Your task to perform on an android device: open app "HBO Max: Stream TV & Movies" (install if not already installed), go to login, and select forgot password Image 0: 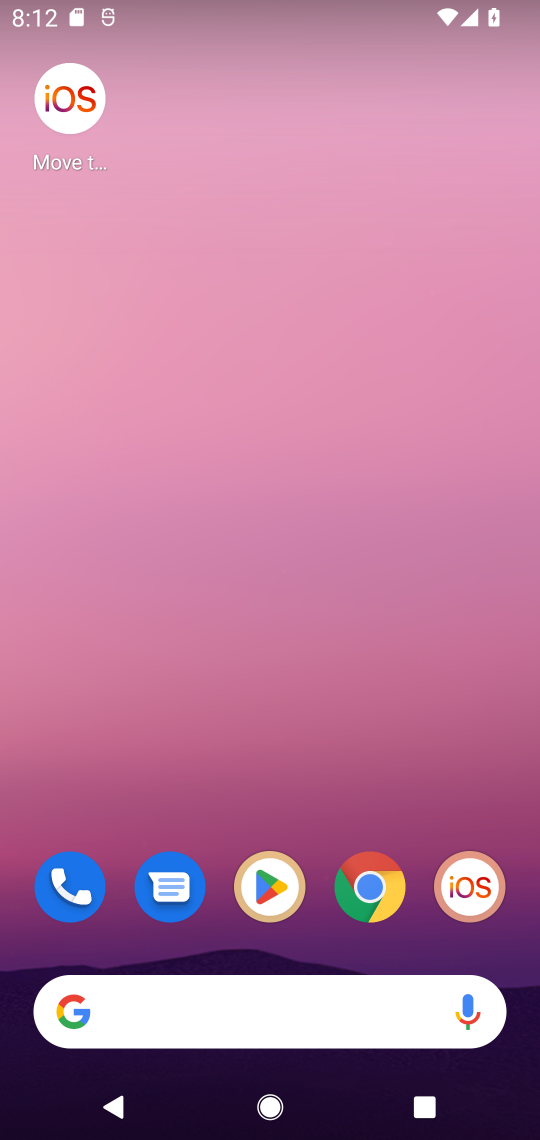
Step 0: click (259, 918)
Your task to perform on an android device: open app "HBO Max: Stream TV & Movies" (install if not already installed), go to login, and select forgot password Image 1: 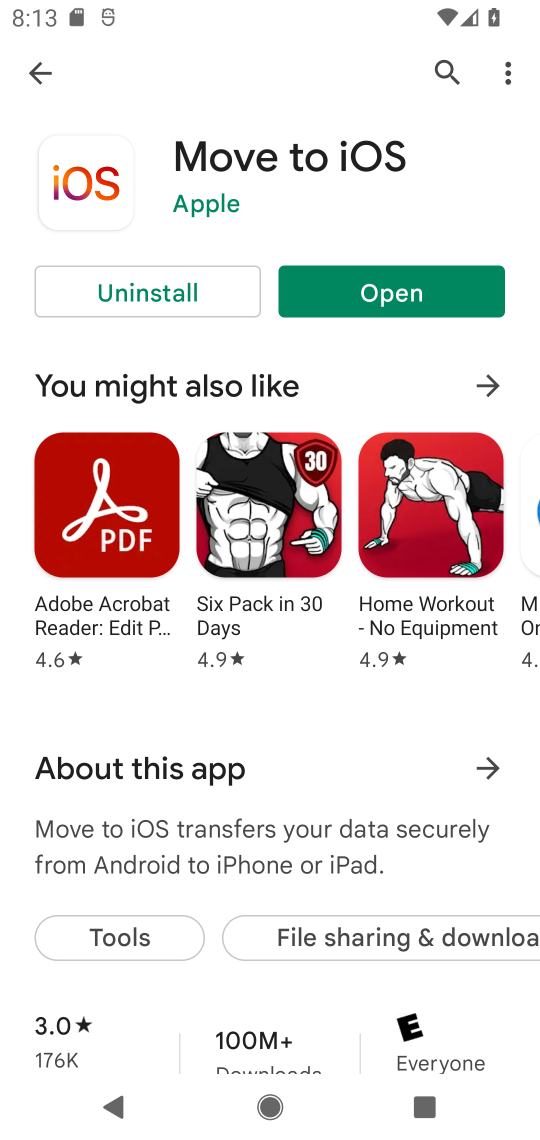
Step 1: click (448, 97)
Your task to perform on an android device: open app "HBO Max: Stream TV & Movies" (install if not already installed), go to login, and select forgot password Image 2: 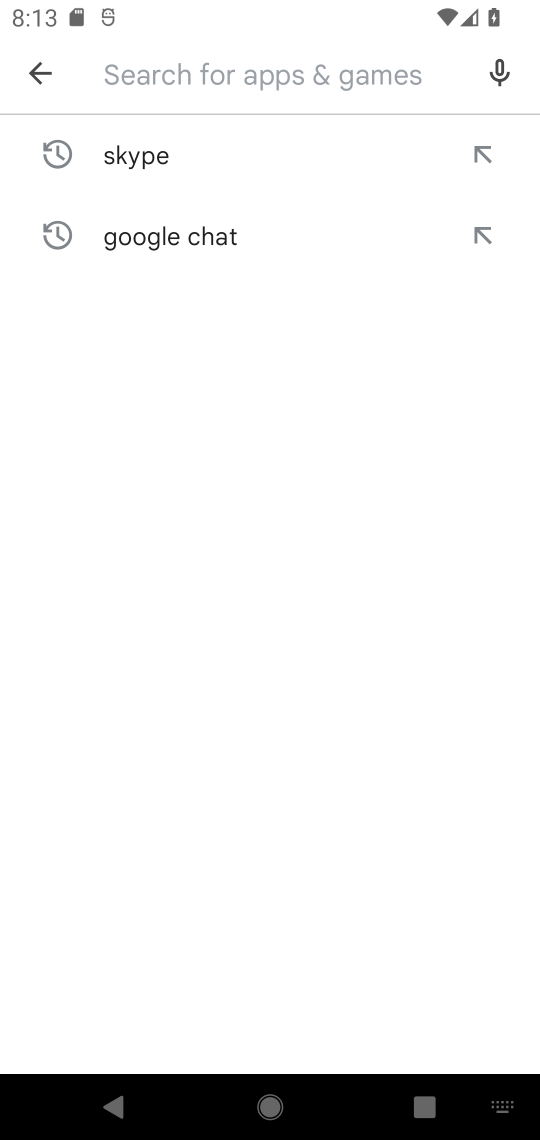
Step 2: type "hbo"
Your task to perform on an android device: open app "HBO Max: Stream TV & Movies" (install if not already installed), go to login, and select forgot password Image 3: 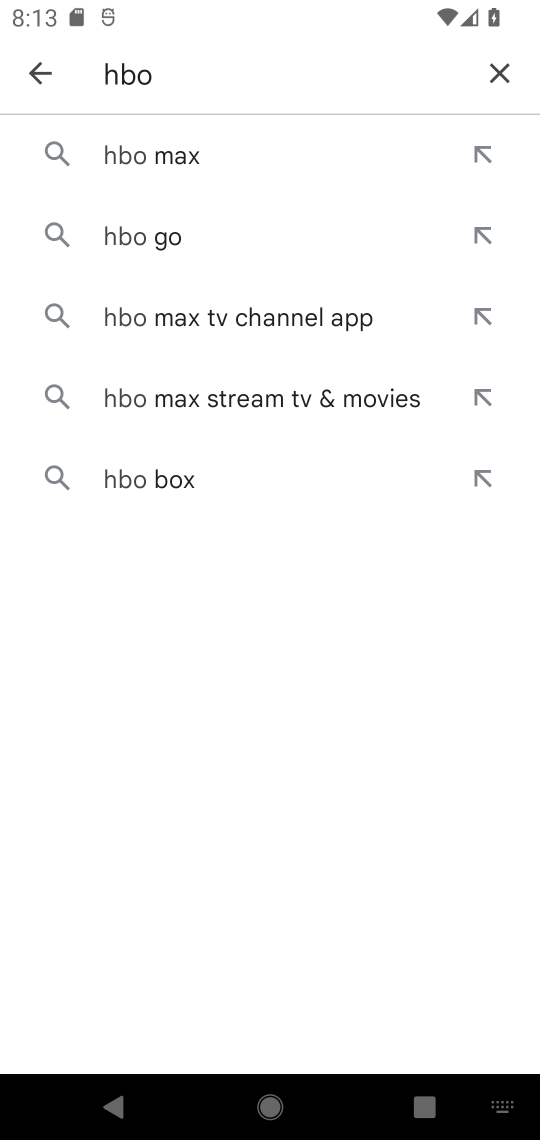
Step 3: click (301, 126)
Your task to perform on an android device: open app "HBO Max: Stream TV & Movies" (install if not already installed), go to login, and select forgot password Image 4: 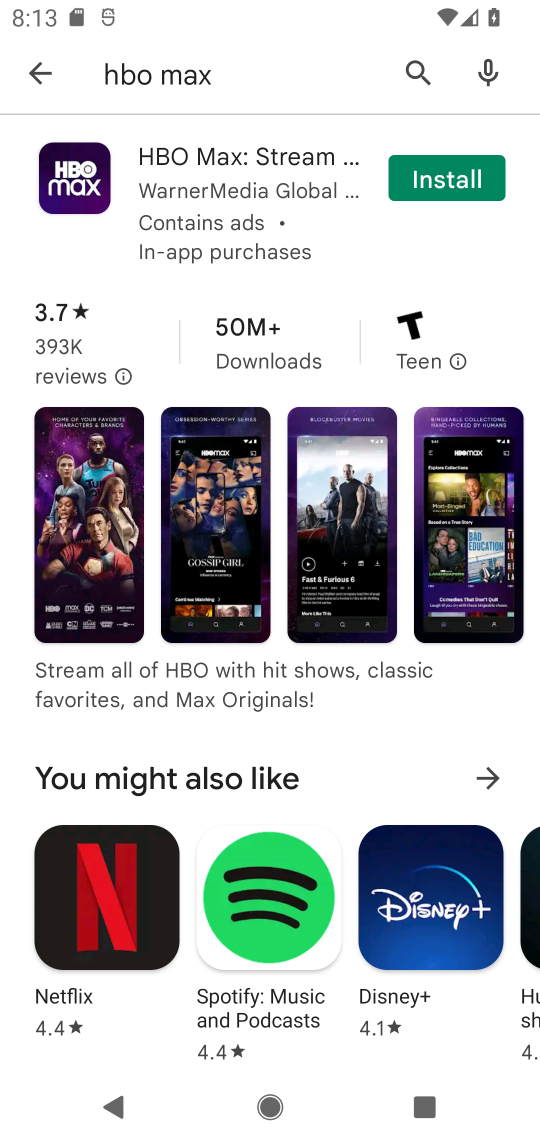
Step 4: click (425, 160)
Your task to perform on an android device: open app "HBO Max: Stream TV & Movies" (install if not already installed), go to login, and select forgot password Image 5: 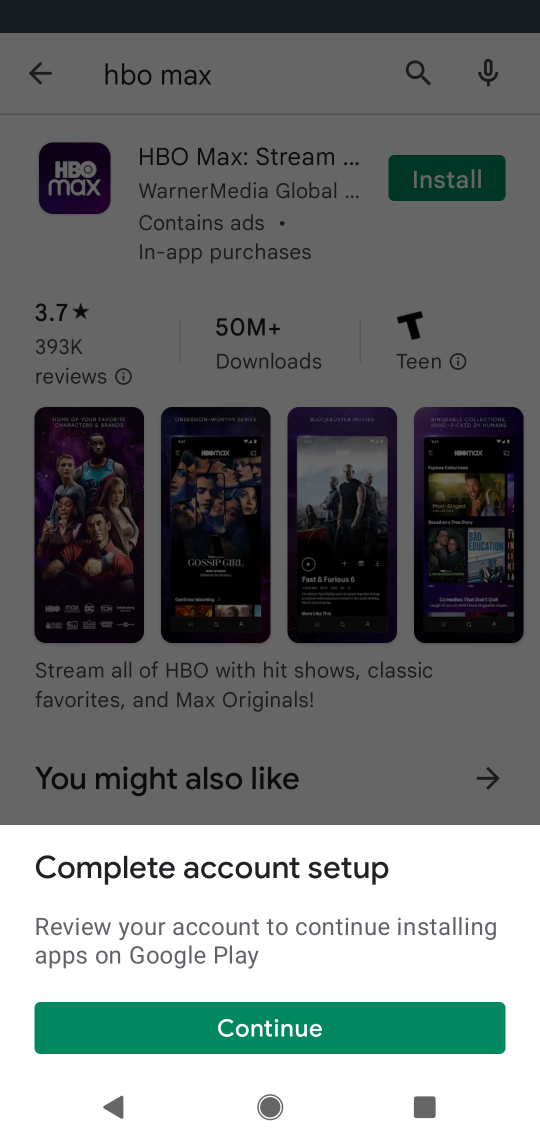
Step 5: click (337, 1034)
Your task to perform on an android device: open app "HBO Max: Stream TV & Movies" (install if not already installed), go to login, and select forgot password Image 6: 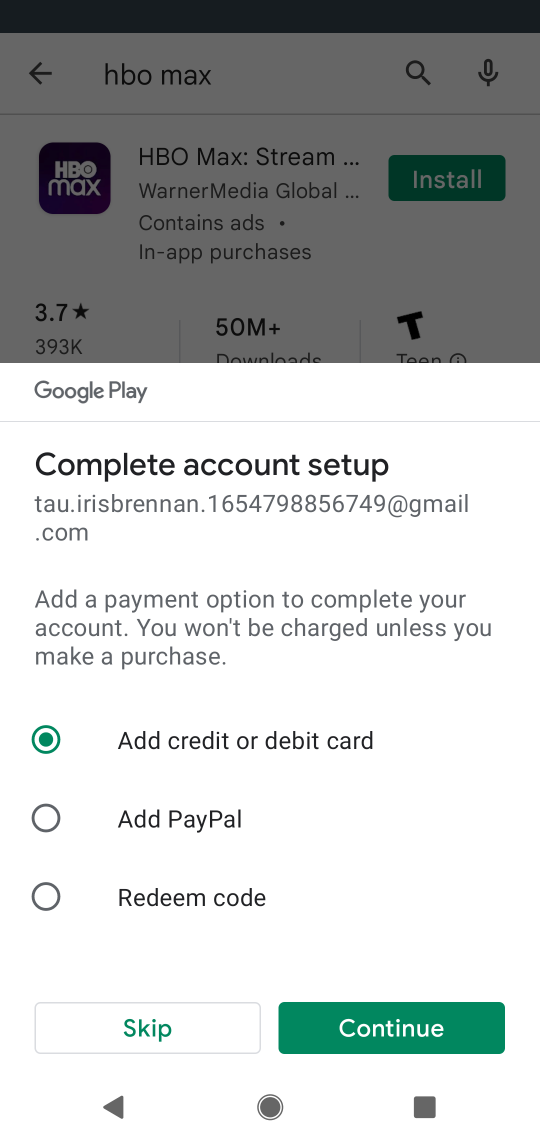
Step 6: click (177, 1047)
Your task to perform on an android device: open app "HBO Max: Stream TV & Movies" (install if not already installed), go to login, and select forgot password Image 7: 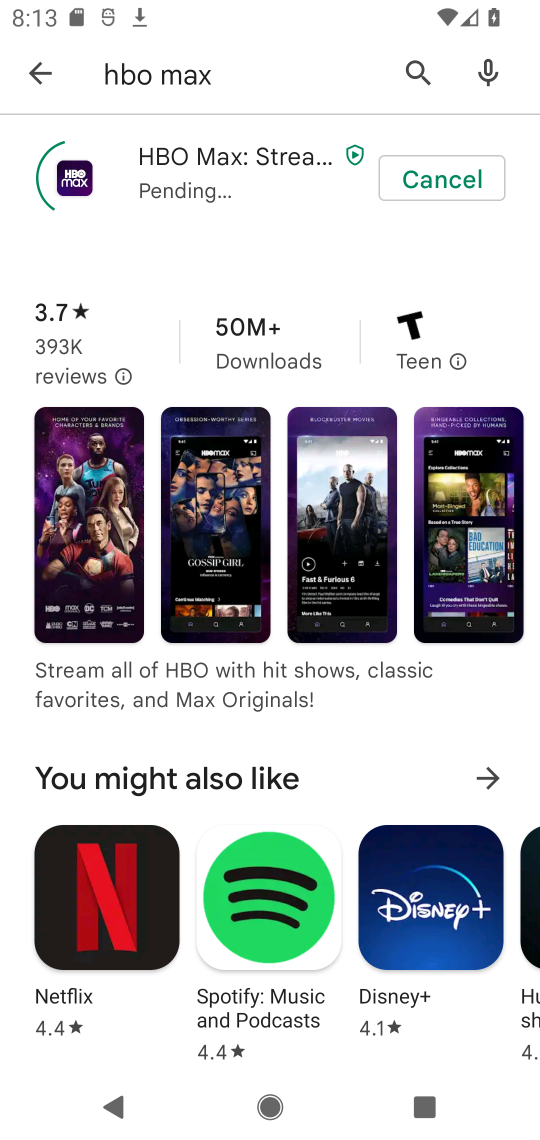
Step 7: task complete